Your task to perform on an android device: Go to Google Image 0: 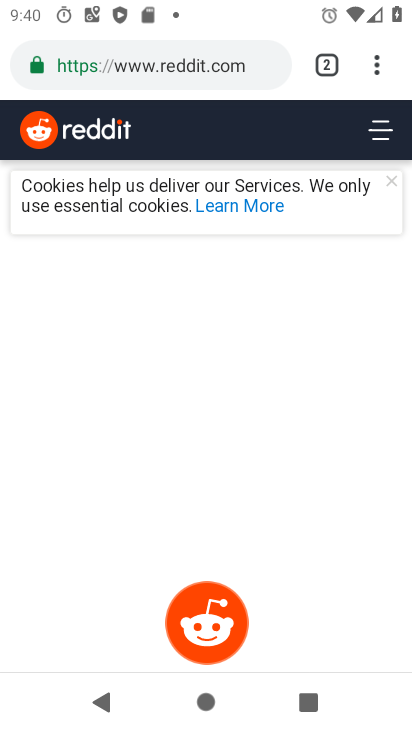
Step 0: press home button
Your task to perform on an android device: Go to Google Image 1: 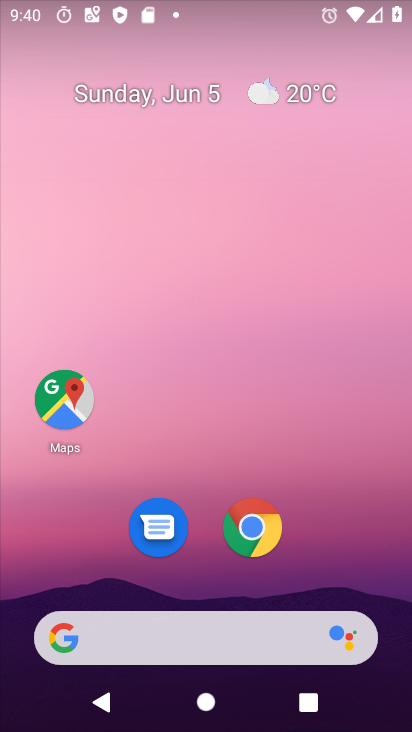
Step 1: drag from (348, 541) to (241, 13)
Your task to perform on an android device: Go to Google Image 2: 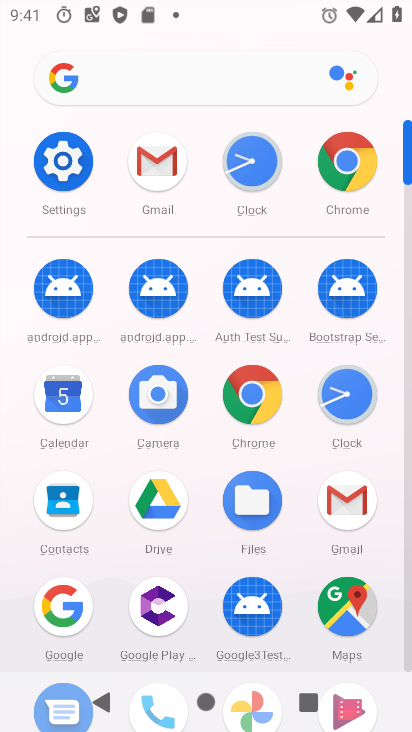
Step 2: click (44, 599)
Your task to perform on an android device: Go to Google Image 3: 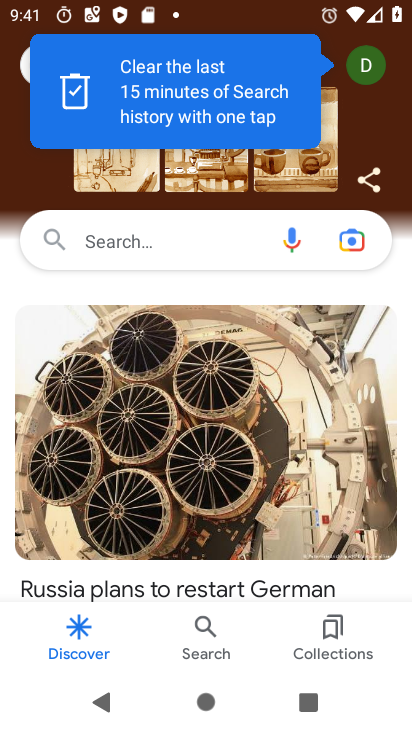
Step 3: task complete